Your task to perform on an android device: toggle sleep mode Image 0: 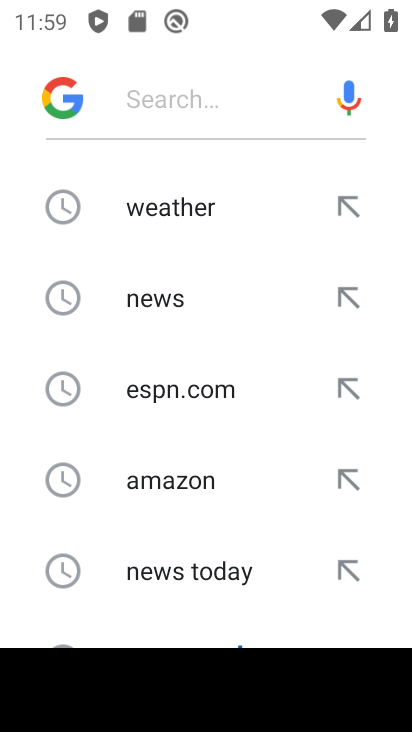
Step 0: press home button
Your task to perform on an android device: toggle sleep mode Image 1: 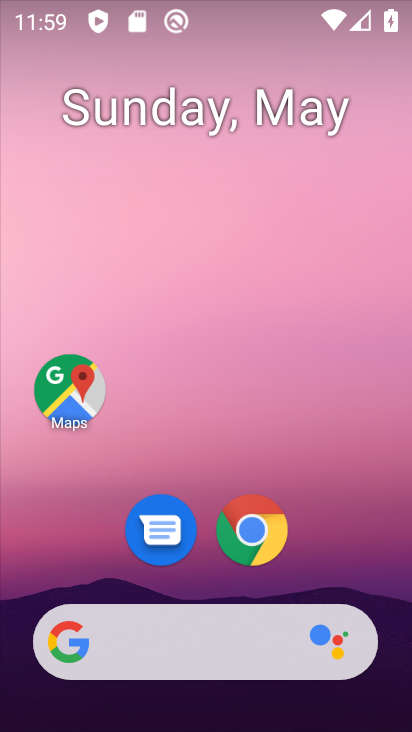
Step 1: drag from (181, 555) to (226, 71)
Your task to perform on an android device: toggle sleep mode Image 2: 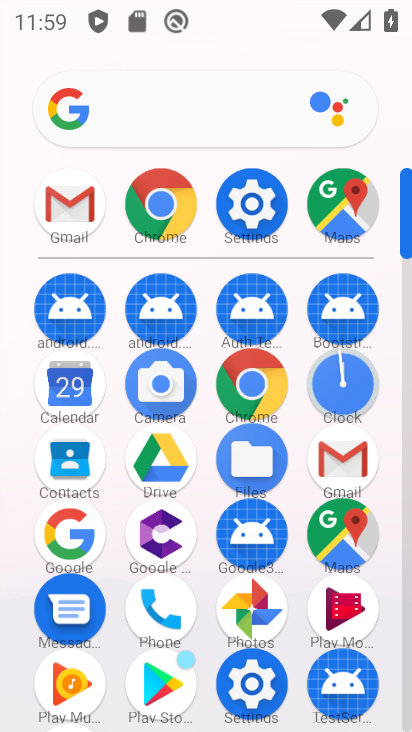
Step 2: click (249, 183)
Your task to perform on an android device: toggle sleep mode Image 3: 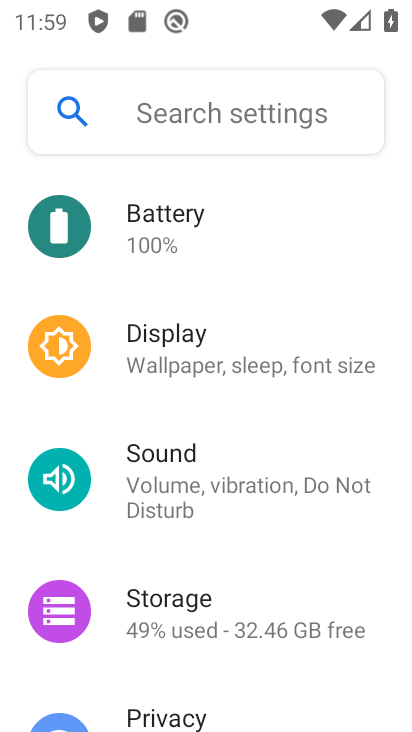
Step 3: click (154, 114)
Your task to perform on an android device: toggle sleep mode Image 4: 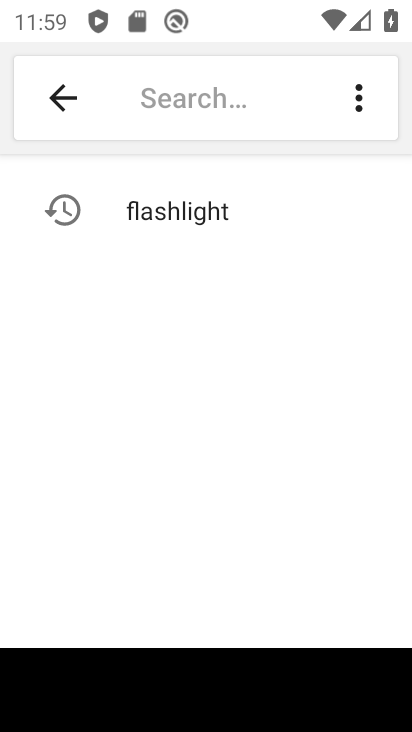
Step 4: type "sleep mode"
Your task to perform on an android device: toggle sleep mode Image 5: 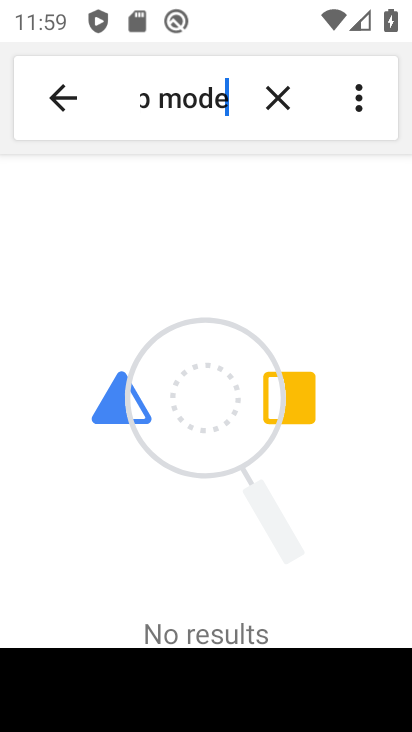
Step 5: task complete